Your task to perform on an android device: turn off data saver in the chrome app Image 0: 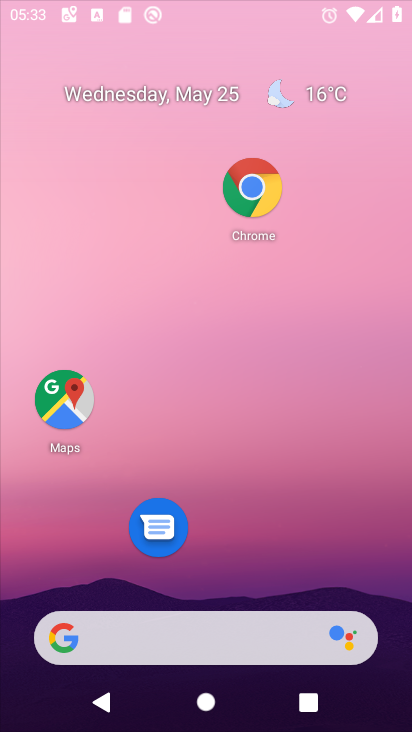
Step 0: drag from (302, 612) to (271, 59)
Your task to perform on an android device: turn off data saver in the chrome app Image 1: 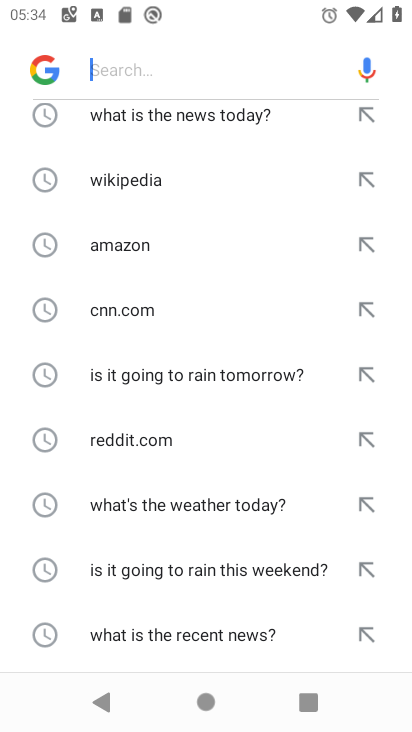
Step 1: press home button
Your task to perform on an android device: turn off data saver in the chrome app Image 2: 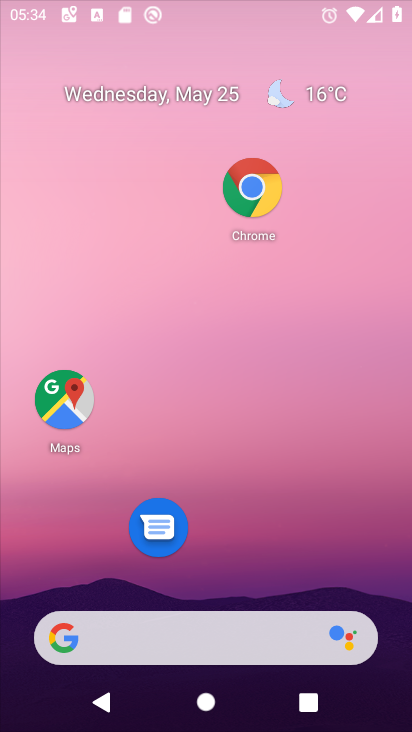
Step 2: drag from (182, 601) to (271, 47)
Your task to perform on an android device: turn off data saver in the chrome app Image 3: 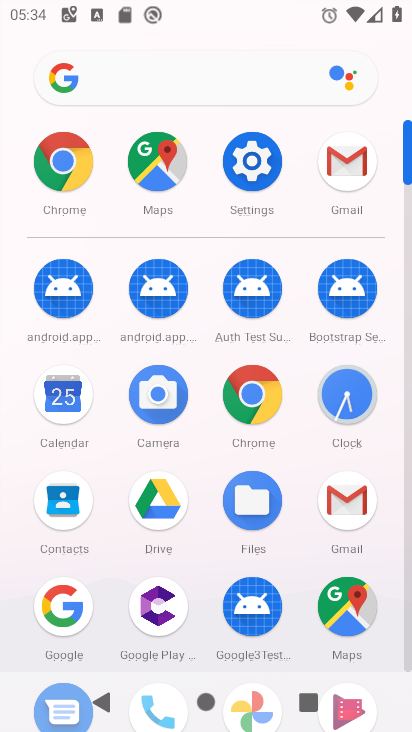
Step 3: click (264, 392)
Your task to perform on an android device: turn off data saver in the chrome app Image 4: 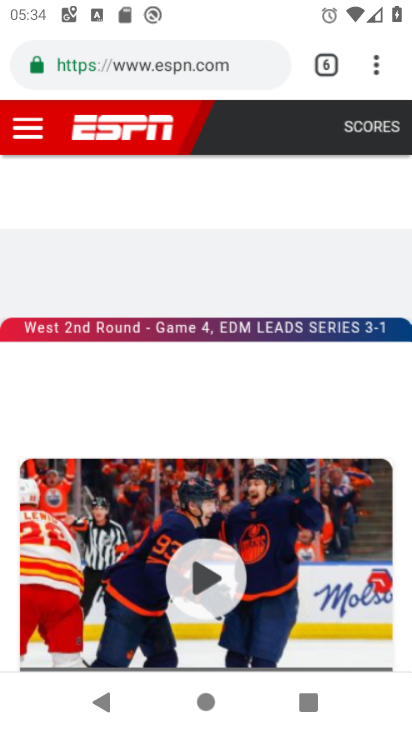
Step 4: drag from (375, 62) to (175, 580)
Your task to perform on an android device: turn off data saver in the chrome app Image 5: 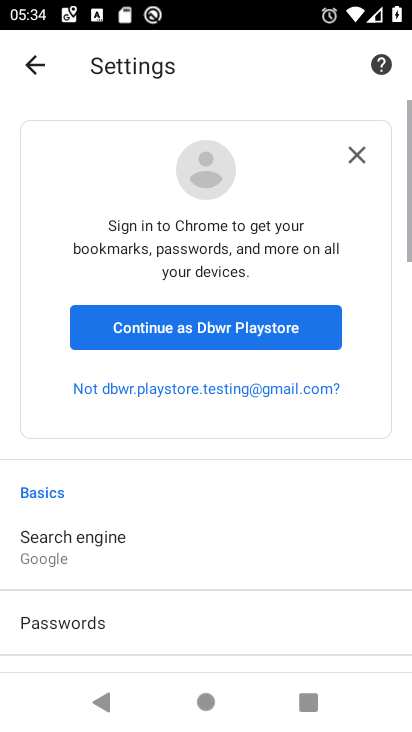
Step 5: drag from (221, 633) to (334, 12)
Your task to perform on an android device: turn off data saver in the chrome app Image 6: 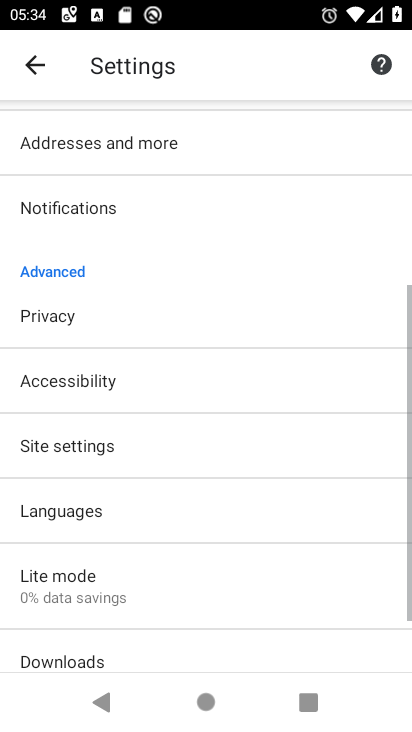
Step 6: drag from (302, 552) to (324, 115)
Your task to perform on an android device: turn off data saver in the chrome app Image 7: 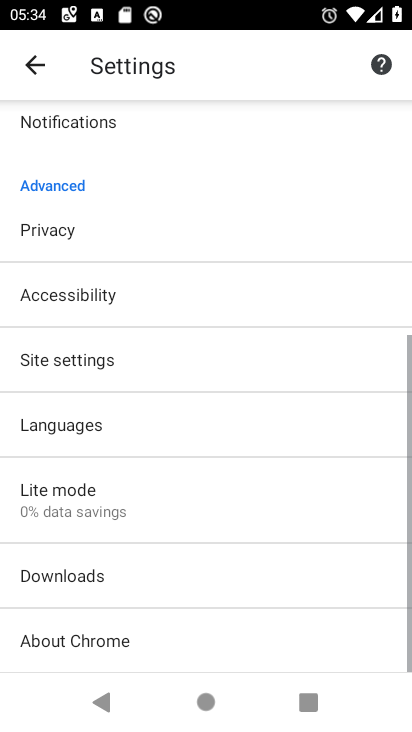
Step 7: click (86, 495)
Your task to perform on an android device: turn off data saver in the chrome app Image 8: 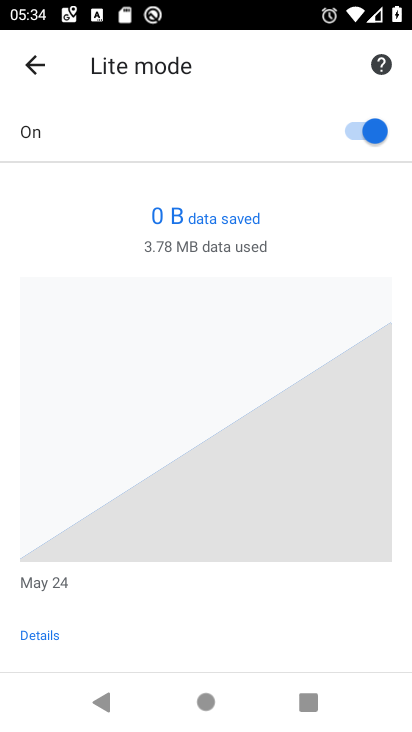
Step 8: click (358, 131)
Your task to perform on an android device: turn off data saver in the chrome app Image 9: 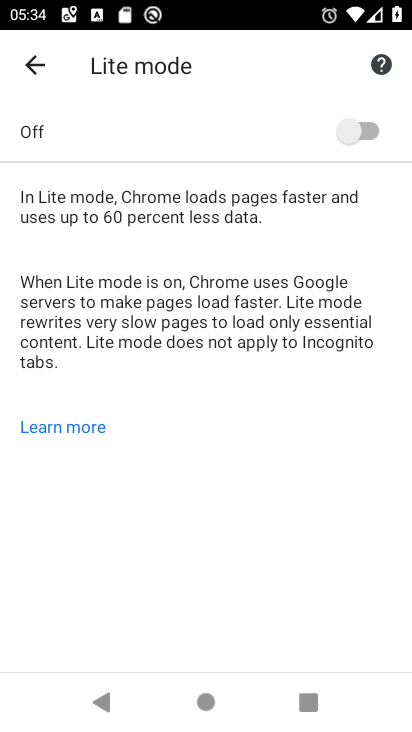
Step 9: task complete